Your task to perform on an android device: clear history in the chrome app Image 0: 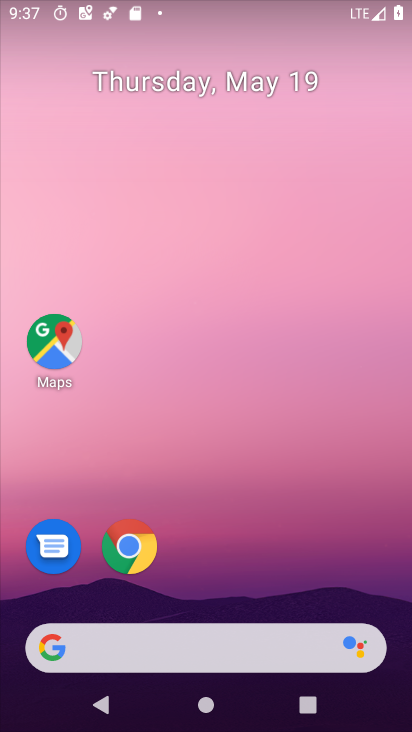
Step 0: drag from (249, 579) to (194, 89)
Your task to perform on an android device: clear history in the chrome app Image 1: 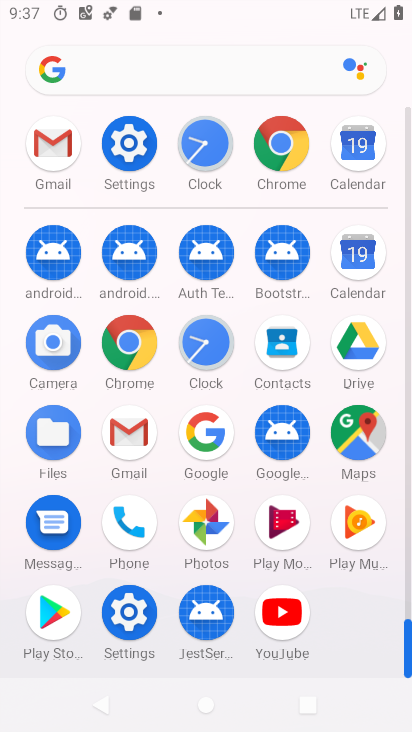
Step 1: drag from (328, 591) to (205, 15)
Your task to perform on an android device: clear history in the chrome app Image 2: 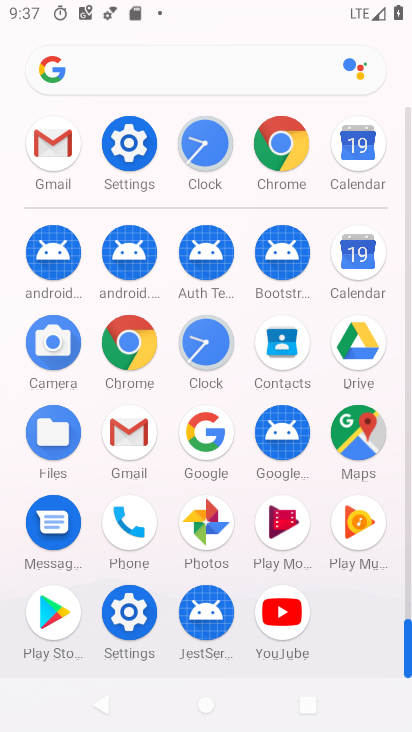
Step 2: click (283, 143)
Your task to perform on an android device: clear history in the chrome app Image 3: 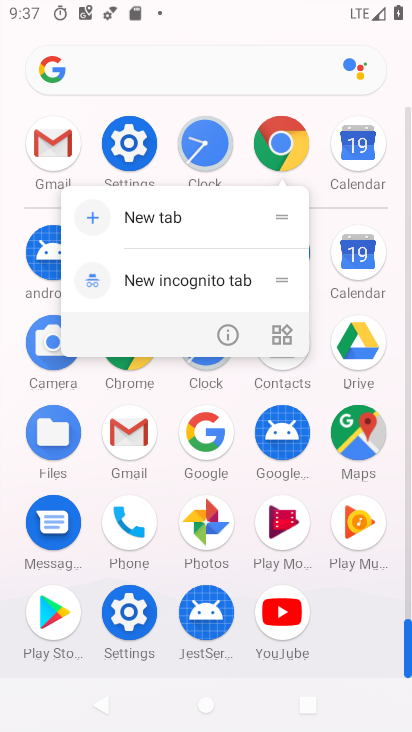
Step 3: click (283, 143)
Your task to perform on an android device: clear history in the chrome app Image 4: 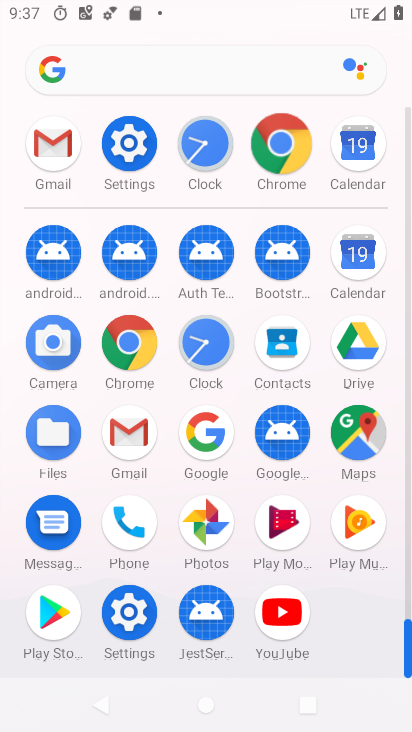
Step 4: click (283, 143)
Your task to perform on an android device: clear history in the chrome app Image 5: 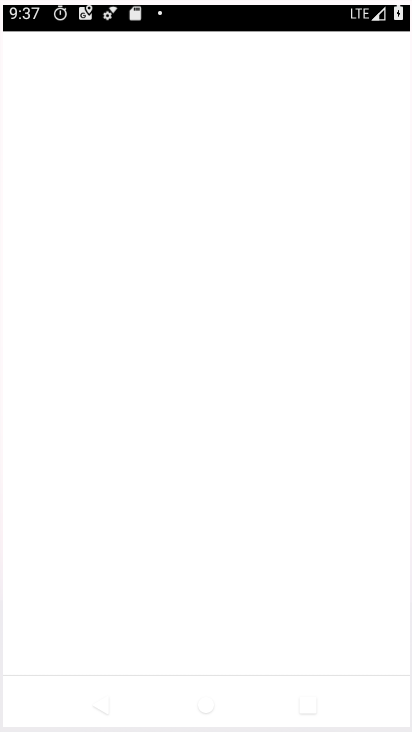
Step 5: click (283, 143)
Your task to perform on an android device: clear history in the chrome app Image 6: 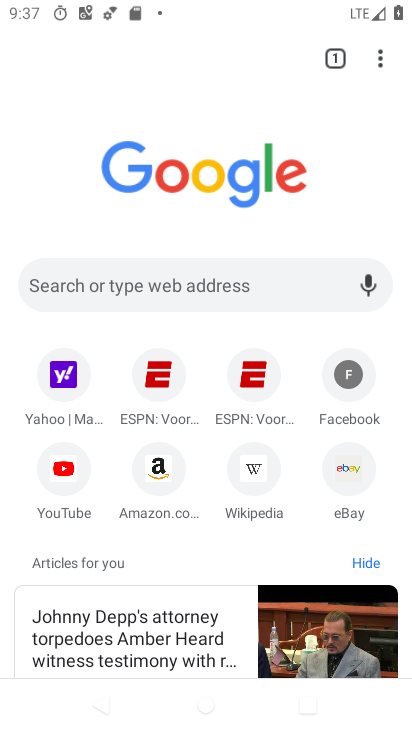
Step 6: drag from (381, 57) to (159, 326)
Your task to perform on an android device: clear history in the chrome app Image 7: 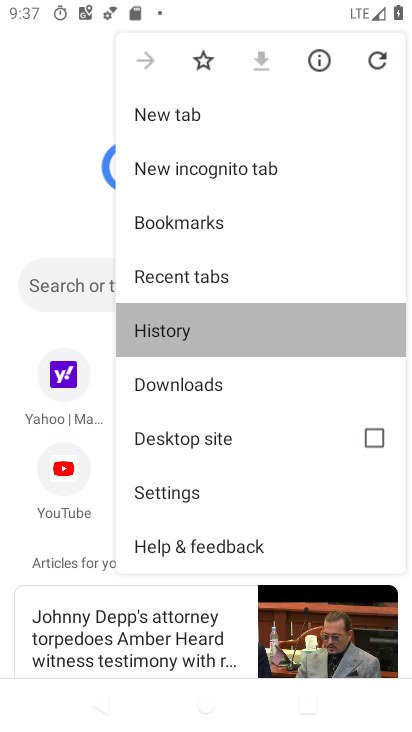
Step 7: click (163, 329)
Your task to perform on an android device: clear history in the chrome app Image 8: 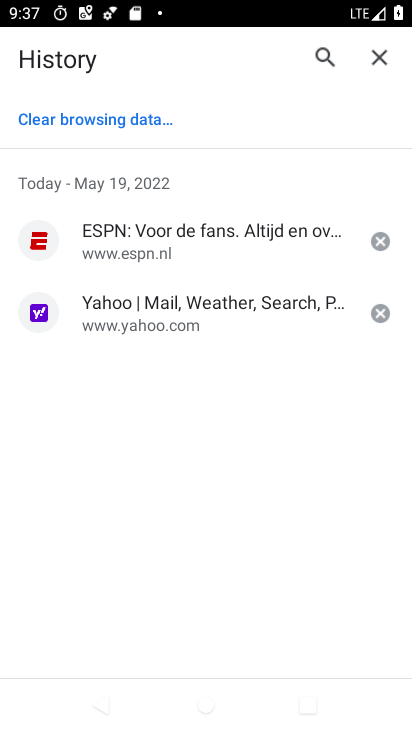
Step 8: click (104, 114)
Your task to perform on an android device: clear history in the chrome app Image 9: 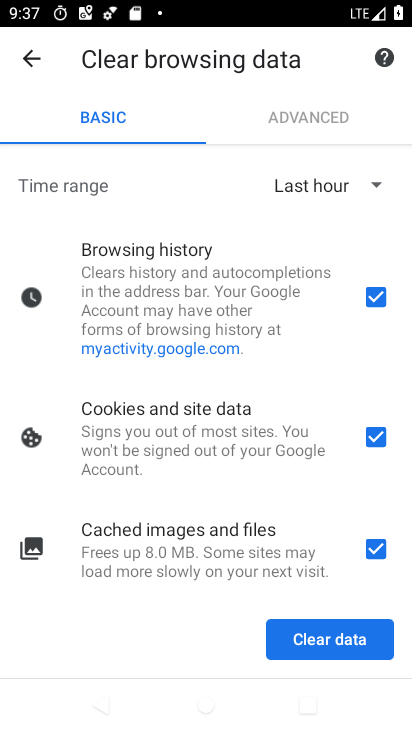
Step 9: click (337, 639)
Your task to perform on an android device: clear history in the chrome app Image 10: 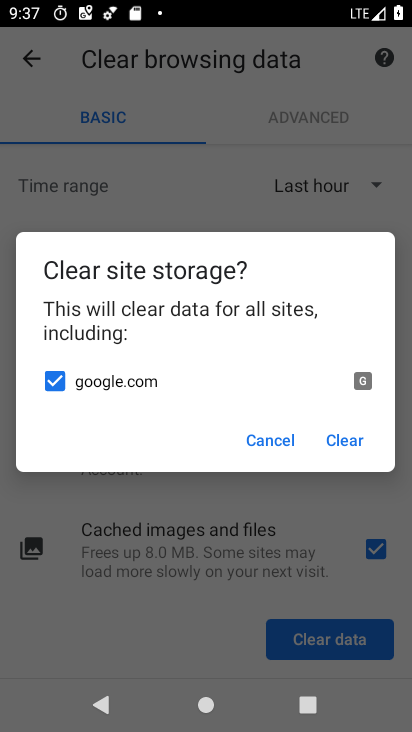
Step 10: click (333, 434)
Your task to perform on an android device: clear history in the chrome app Image 11: 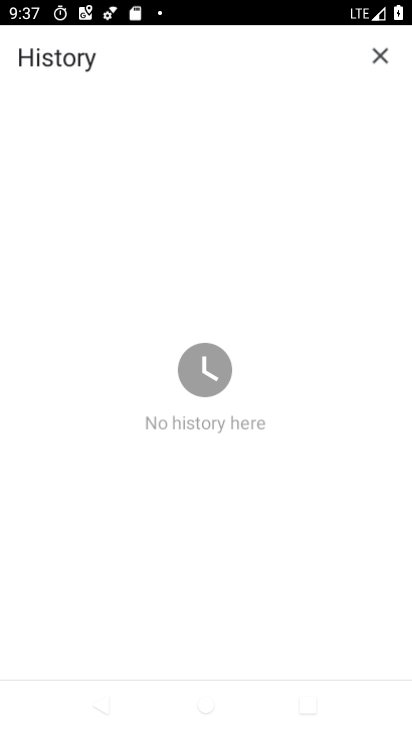
Step 11: task complete